Your task to perform on an android device: change the clock display to analog Image 0: 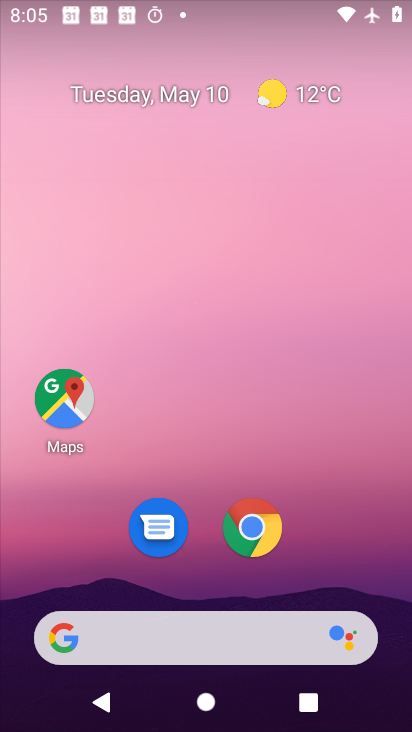
Step 0: drag from (312, 545) to (366, 81)
Your task to perform on an android device: change the clock display to analog Image 1: 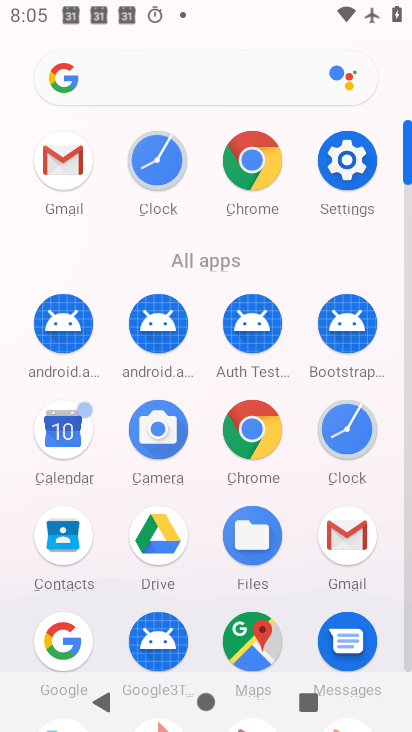
Step 1: click (365, 439)
Your task to perform on an android device: change the clock display to analog Image 2: 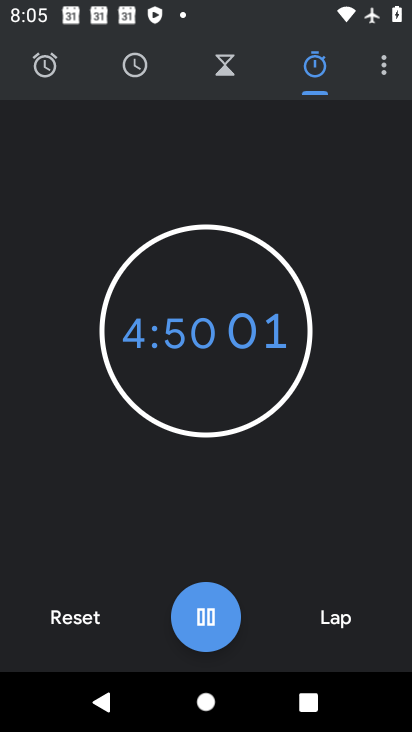
Step 2: drag from (390, 71) to (380, 136)
Your task to perform on an android device: change the clock display to analog Image 3: 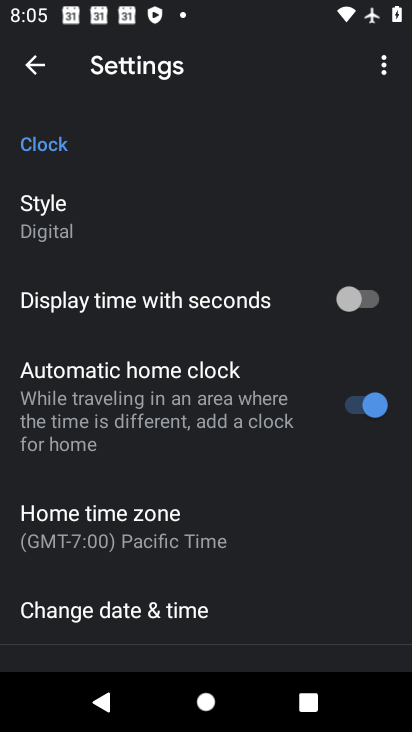
Step 3: click (173, 225)
Your task to perform on an android device: change the clock display to analog Image 4: 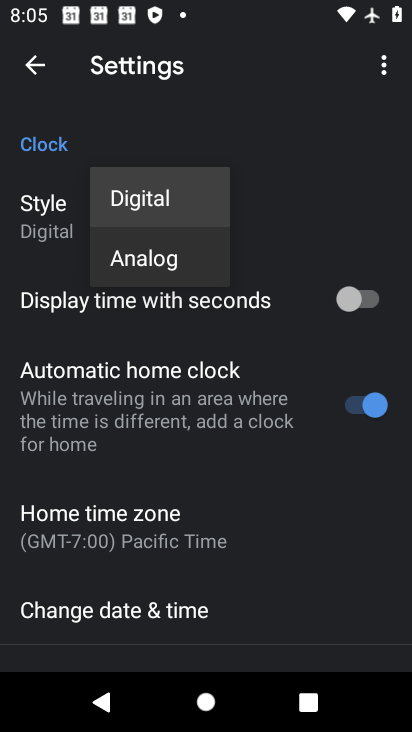
Step 4: click (159, 261)
Your task to perform on an android device: change the clock display to analog Image 5: 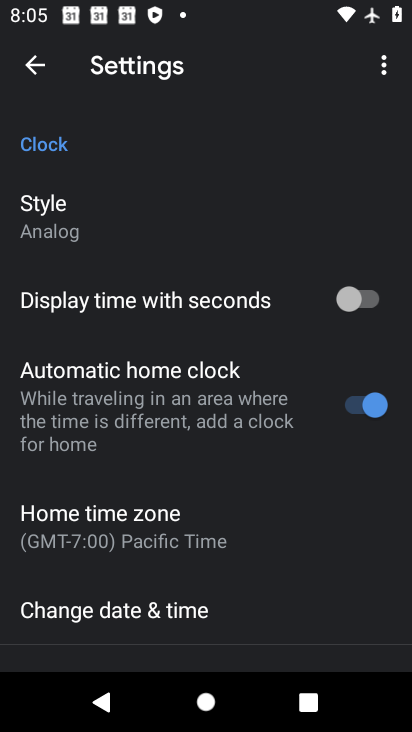
Step 5: task complete